Your task to perform on an android device: toggle show notifications on the lock screen Image 0: 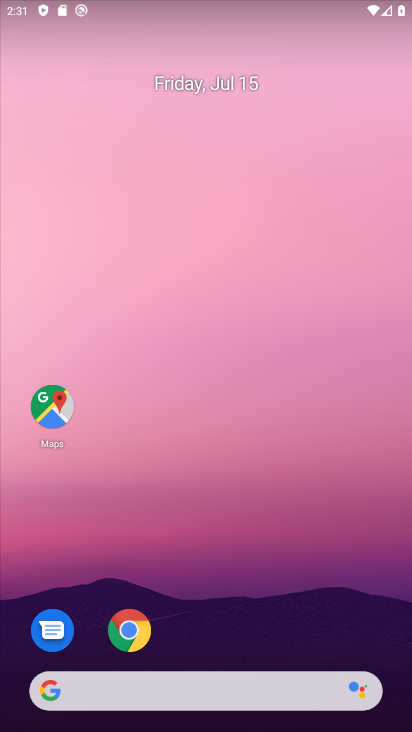
Step 0: drag from (293, 600) to (312, 47)
Your task to perform on an android device: toggle show notifications on the lock screen Image 1: 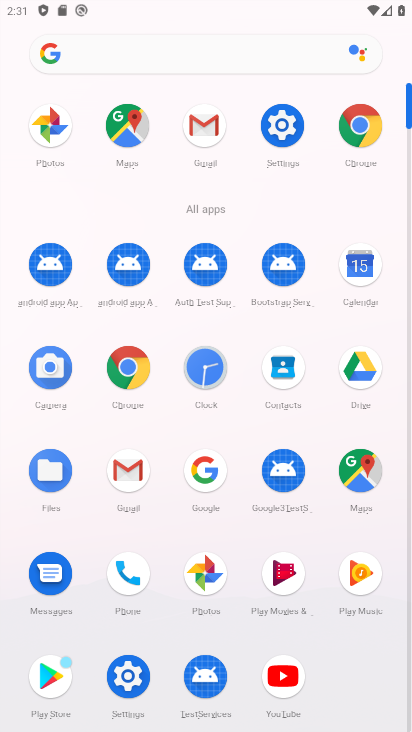
Step 1: click (282, 109)
Your task to perform on an android device: toggle show notifications on the lock screen Image 2: 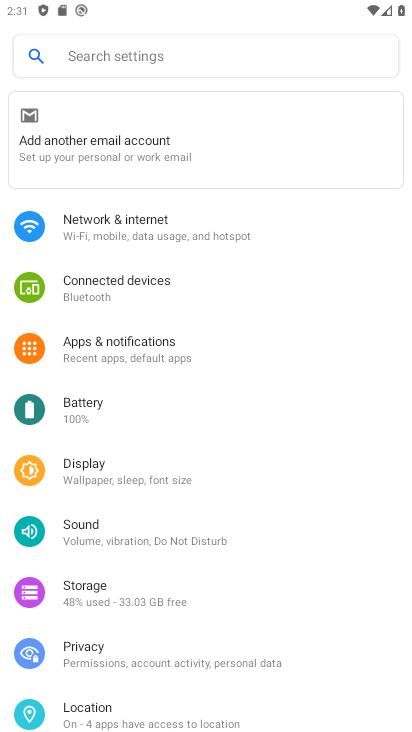
Step 2: click (178, 348)
Your task to perform on an android device: toggle show notifications on the lock screen Image 3: 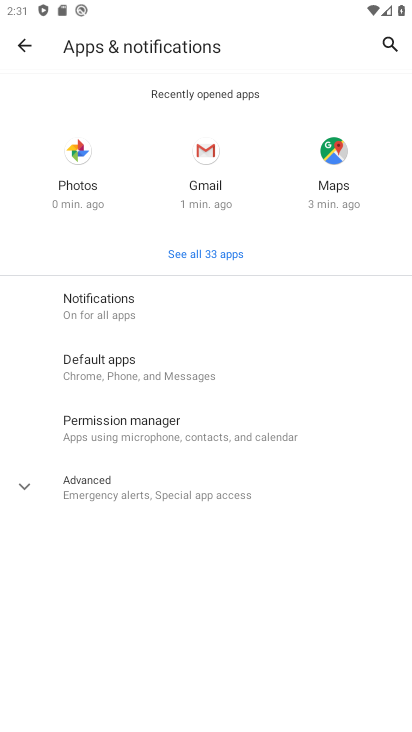
Step 3: click (129, 305)
Your task to perform on an android device: toggle show notifications on the lock screen Image 4: 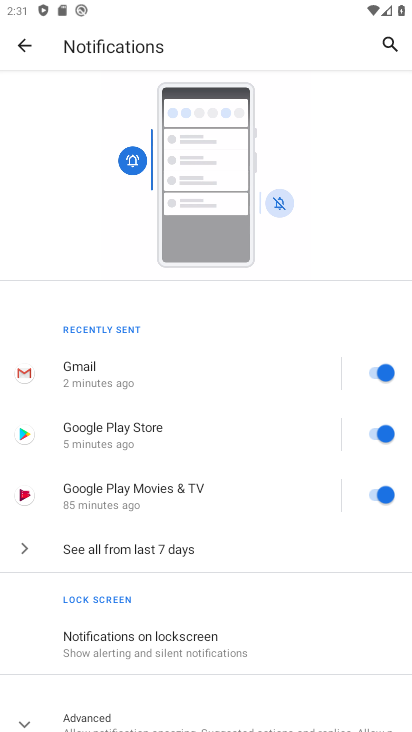
Step 4: click (168, 631)
Your task to perform on an android device: toggle show notifications on the lock screen Image 5: 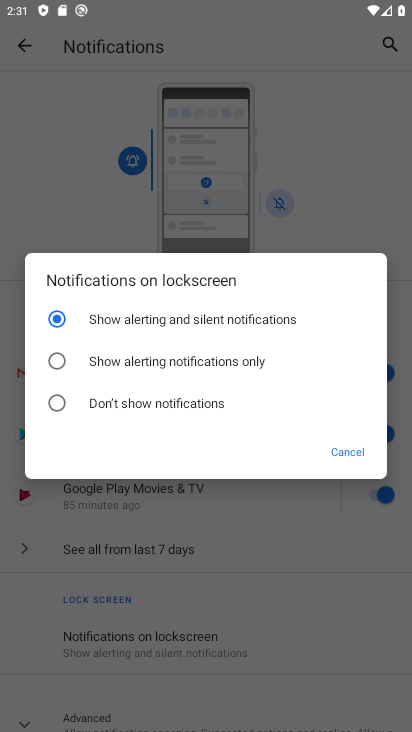
Step 5: click (139, 376)
Your task to perform on an android device: toggle show notifications on the lock screen Image 6: 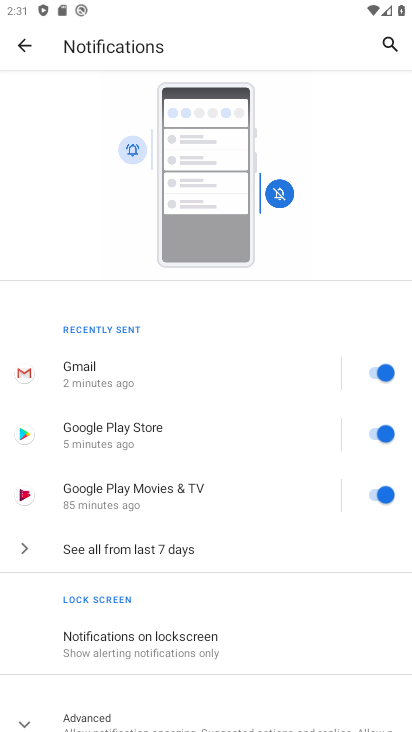
Step 6: task complete